Your task to perform on an android device: change the clock display to analog Image 0: 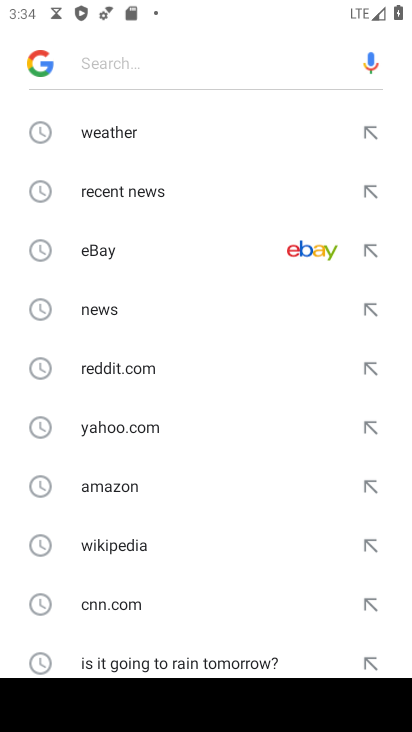
Step 0: press home button
Your task to perform on an android device: change the clock display to analog Image 1: 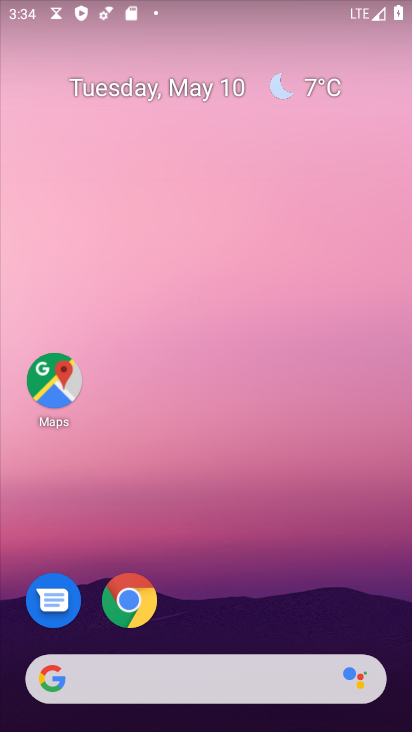
Step 1: task complete